Your task to perform on an android device: Find coffee shops on Maps Image 0: 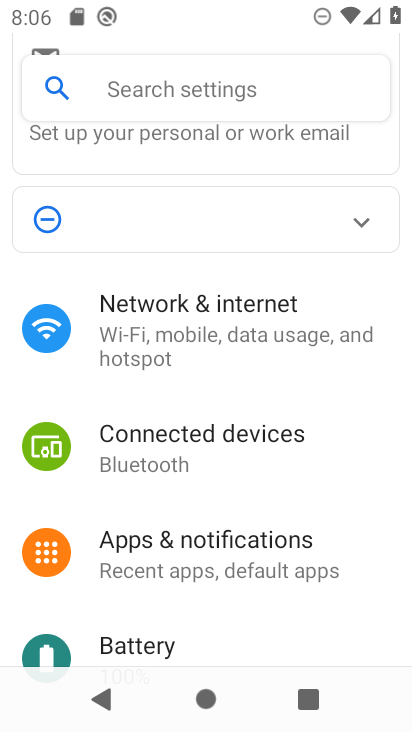
Step 0: press back button
Your task to perform on an android device: Find coffee shops on Maps Image 1: 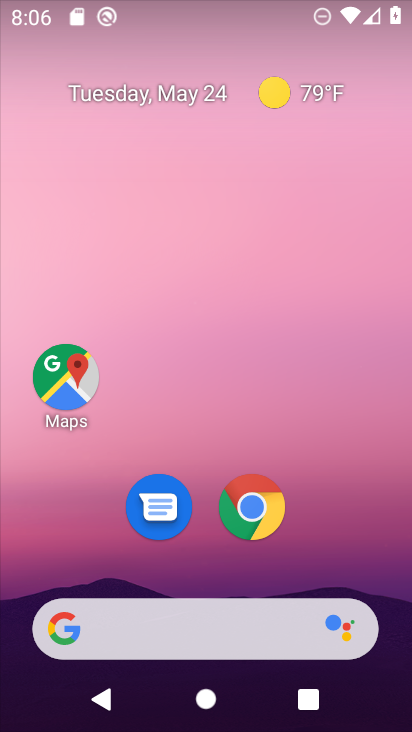
Step 1: drag from (328, 499) to (253, 27)
Your task to perform on an android device: Find coffee shops on Maps Image 2: 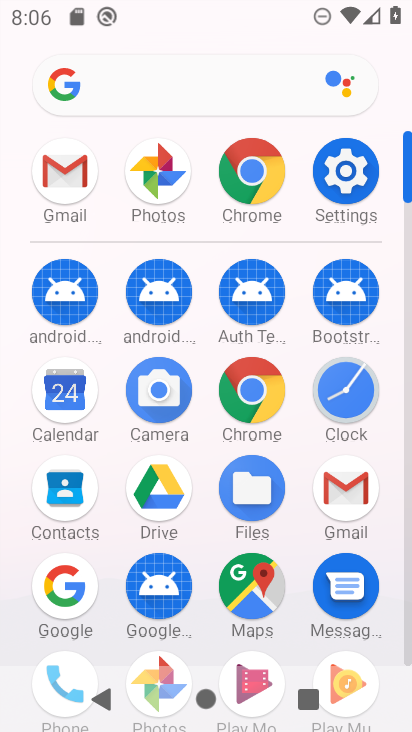
Step 2: click (241, 582)
Your task to perform on an android device: Find coffee shops on Maps Image 3: 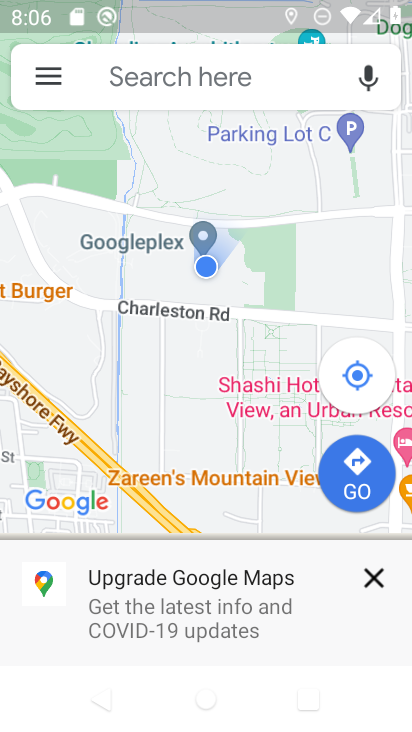
Step 3: click (96, 73)
Your task to perform on an android device: Find coffee shops on Maps Image 4: 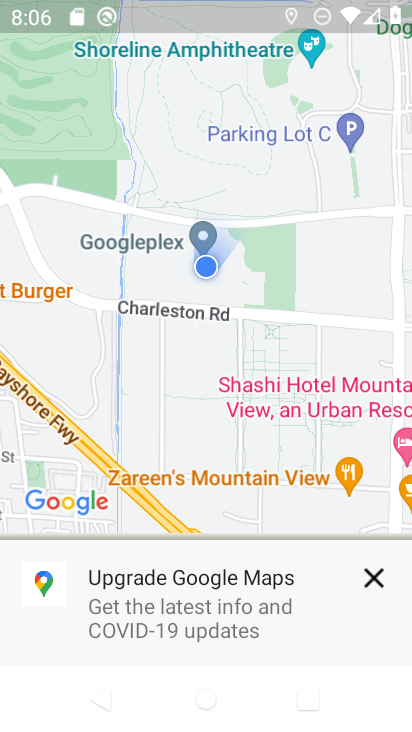
Step 4: click (219, 71)
Your task to perform on an android device: Find coffee shops on Maps Image 5: 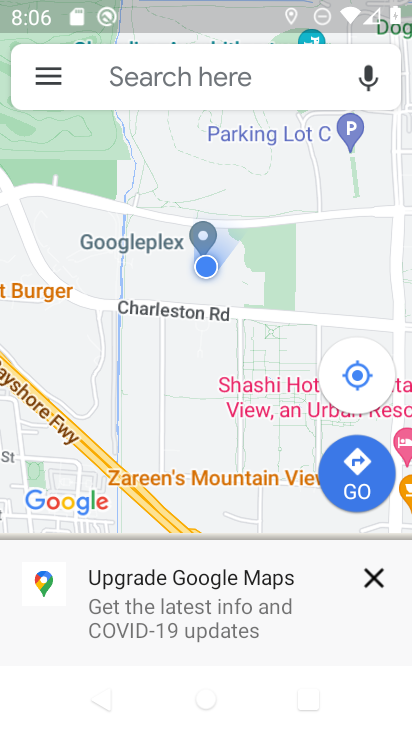
Step 5: click (266, 82)
Your task to perform on an android device: Find coffee shops on Maps Image 6: 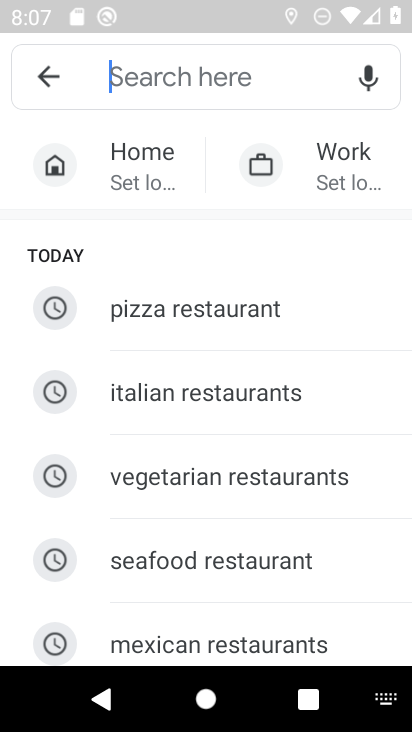
Step 6: type "coffee shops"
Your task to perform on an android device: Find coffee shops on Maps Image 7: 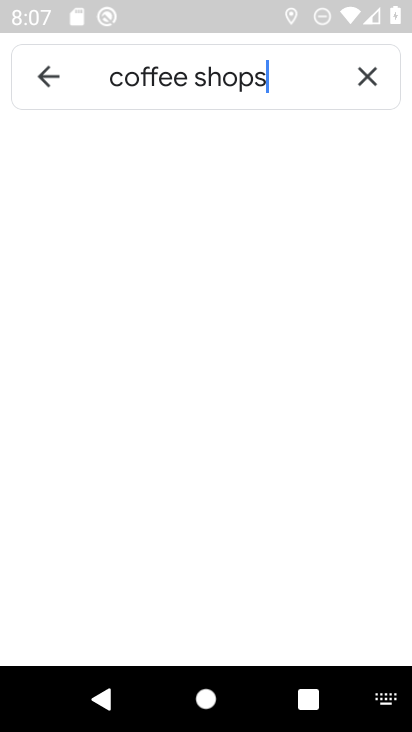
Step 7: type ""
Your task to perform on an android device: Find coffee shops on Maps Image 8: 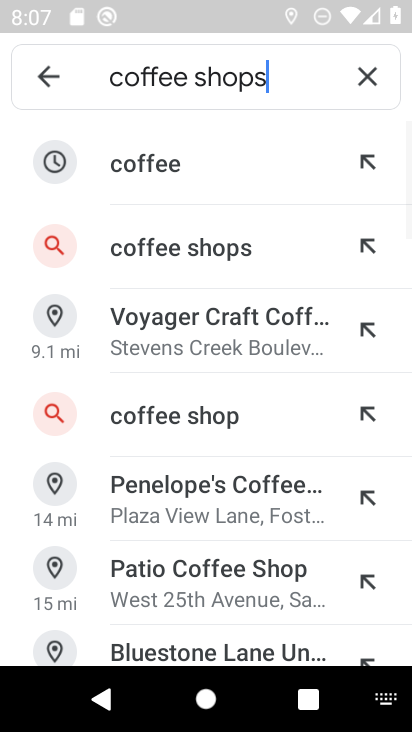
Step 8: click (174, 260)
Your task to perform on an android device: Find coffee shops on Maps Image 9: 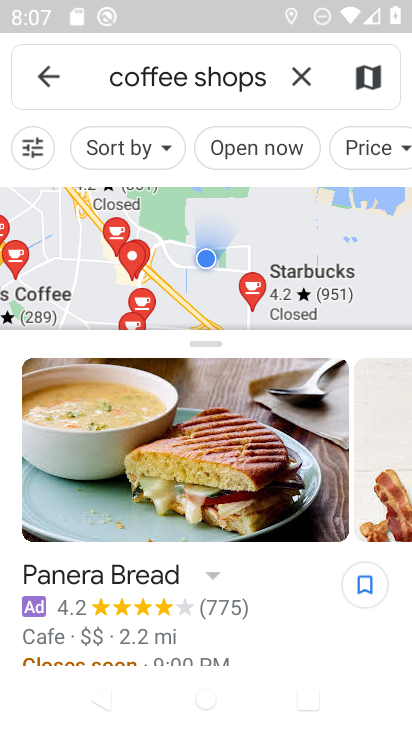
Step 9: task complete